Your task to perform on an android device: search for starred emails in the gmail app Image 0: 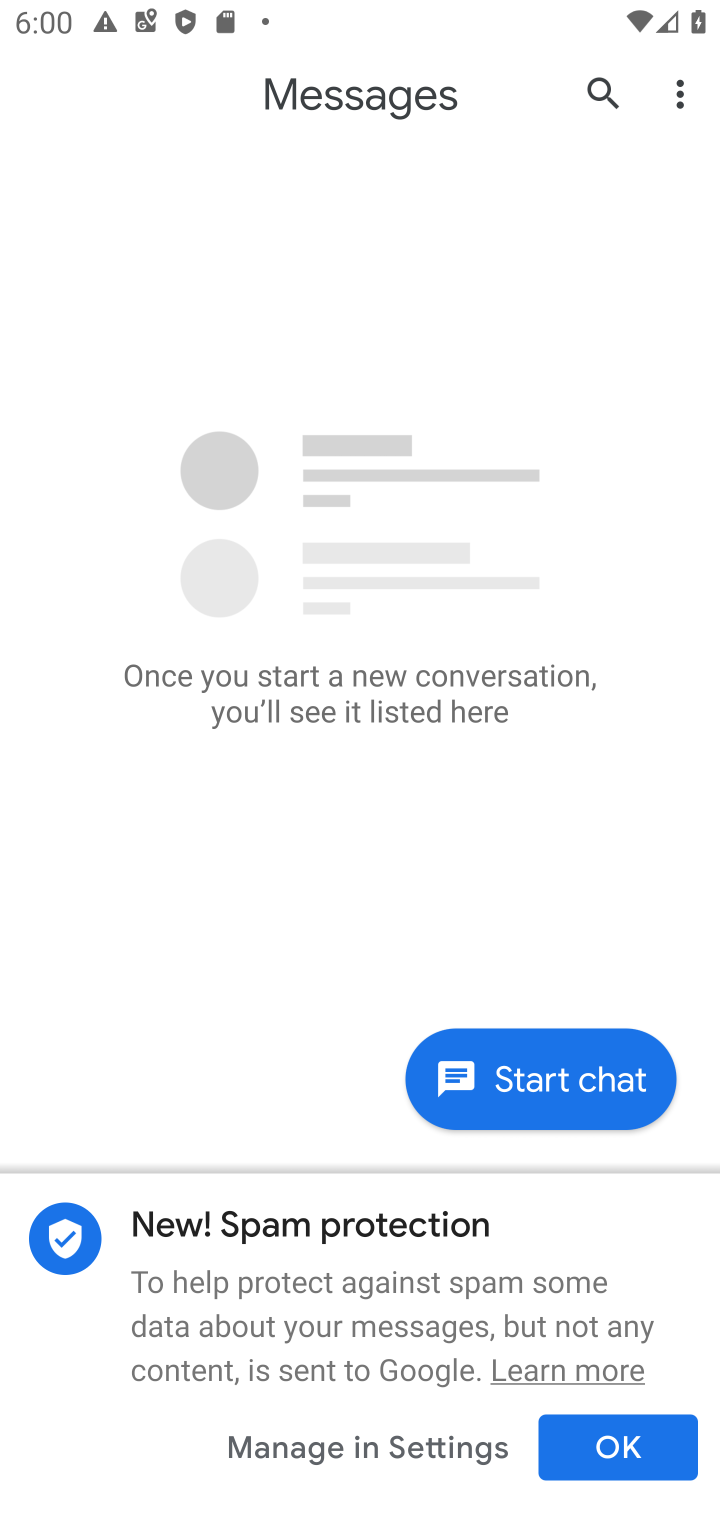
Step 0: click (645, 1453)
Your task to perform on an android device: search for starred emails in the gmail app Image 1: 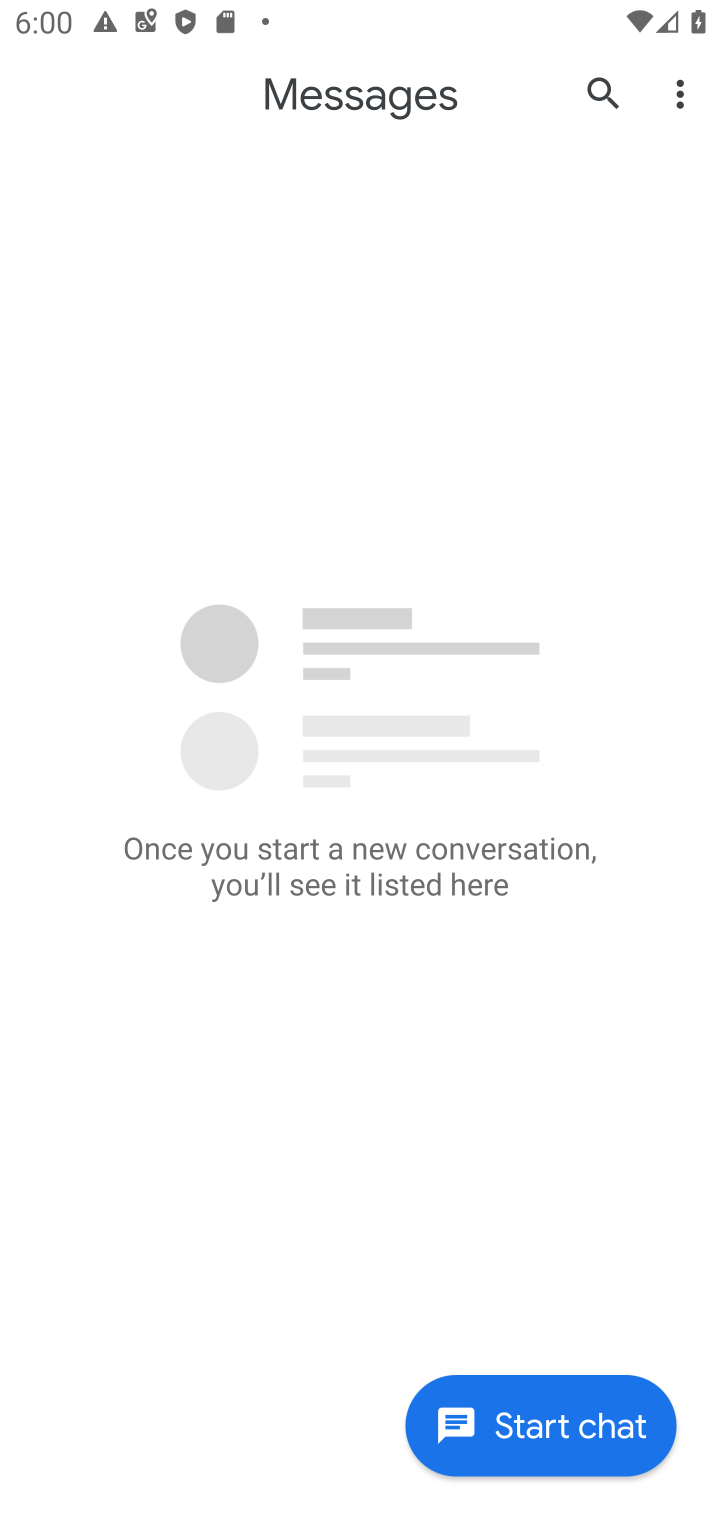
Step 1: task complete